Your task to perform on an android device: toggle priority inbox in the gmail app Image 0: 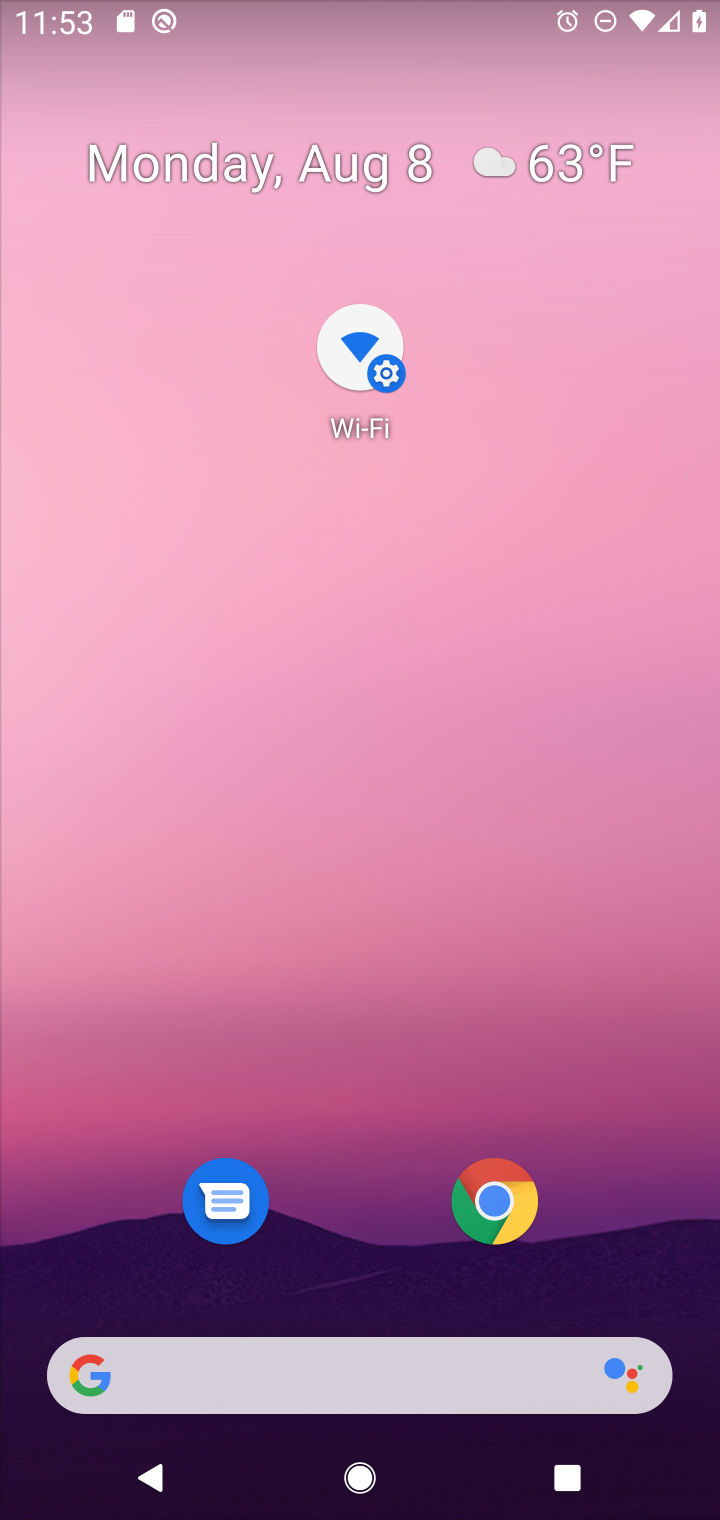
Step 0: press home button
Your task to perform on an android device: toggle priority inbox in the gmail app Image 1: 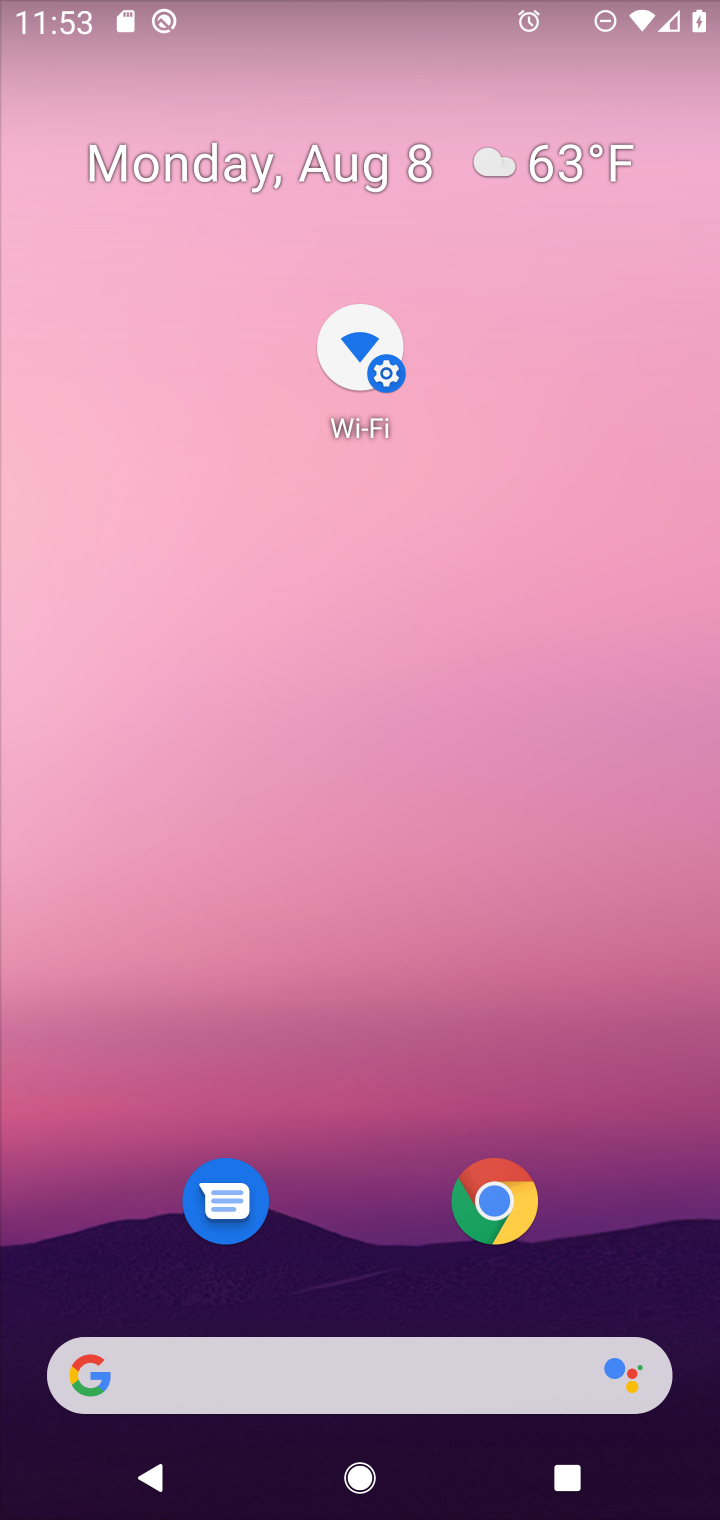
Step 1: drag from (606, 1134) to (609, 243)
Your task to perform on an android device: toggle priority inbox in the gmail app Image 2: 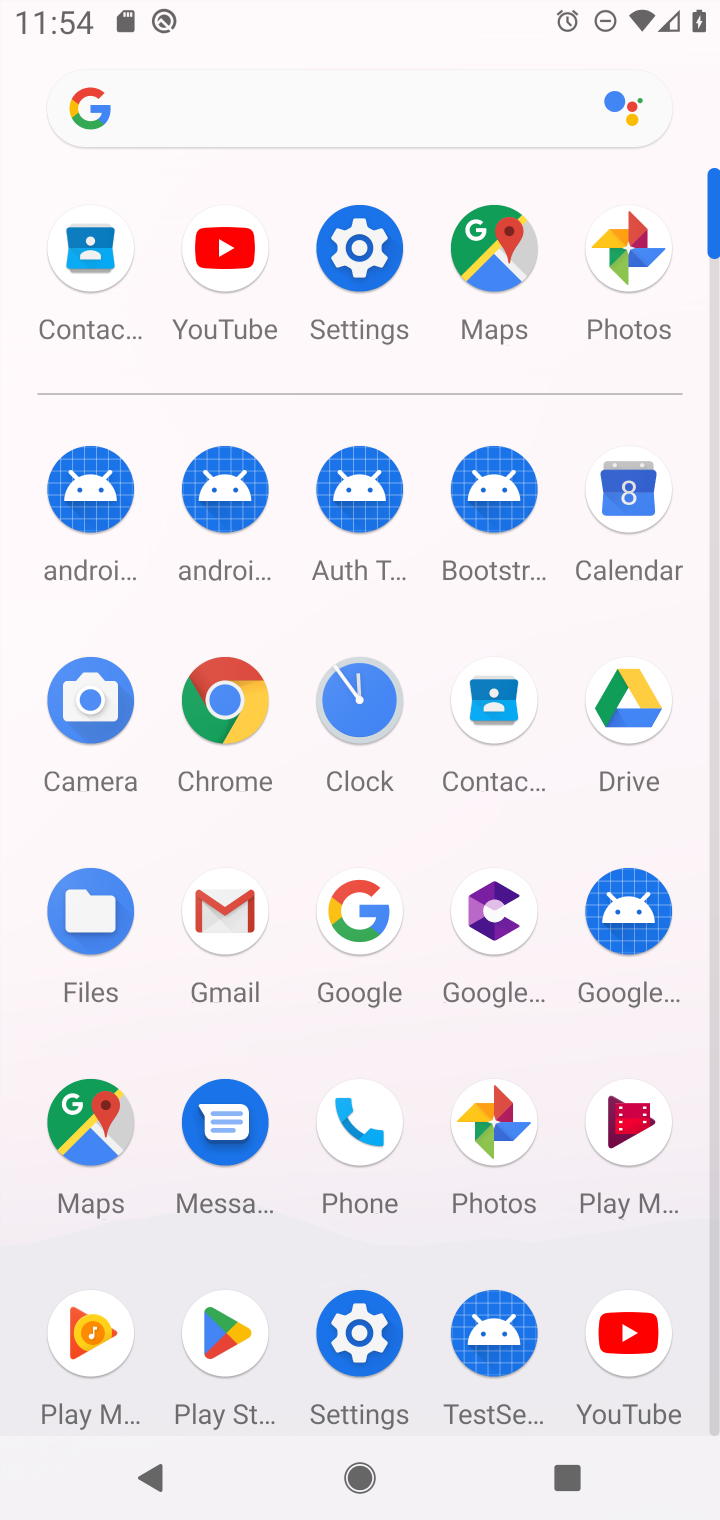
Step 2: click (230, 922)
Your task to perform on an android device: toggle priority inbox in the gmail app Image 3: 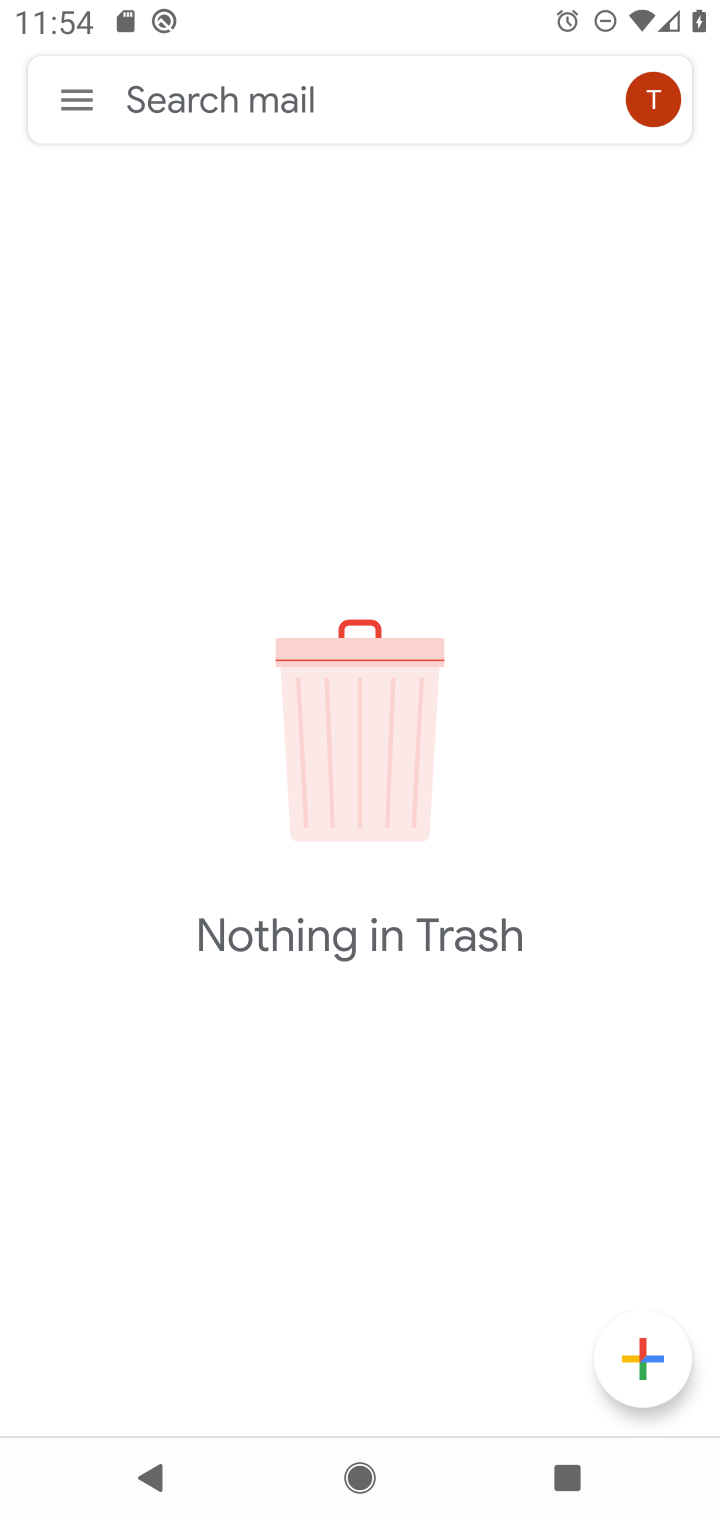
Step 3: click (81, 96)
Your task to perform on an android device: toggle priority inbox in the gmail app Image 4: 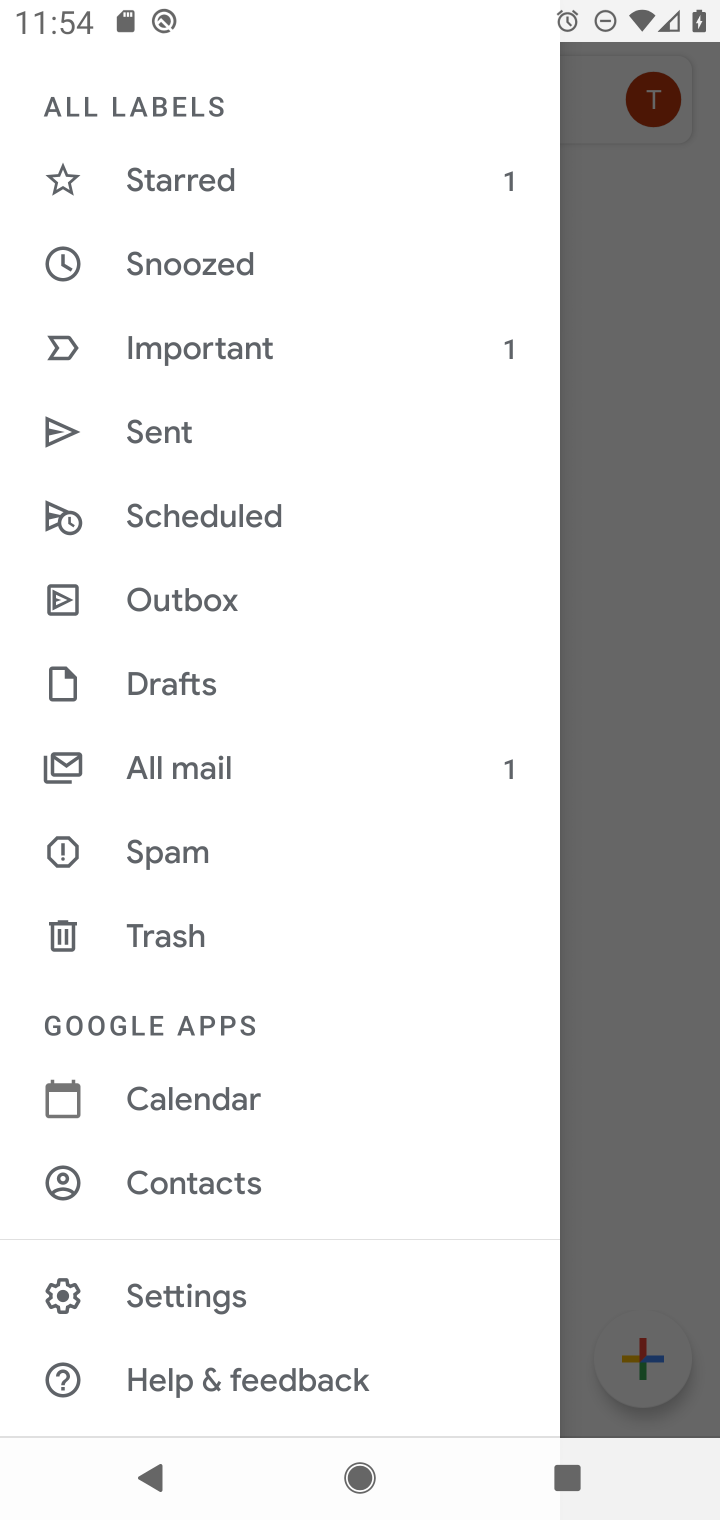
Step 4: drag from (382, 1197) to (388, 816)
Your task to perform on an android device: toggle priority inbox in the gmail app Image 5: 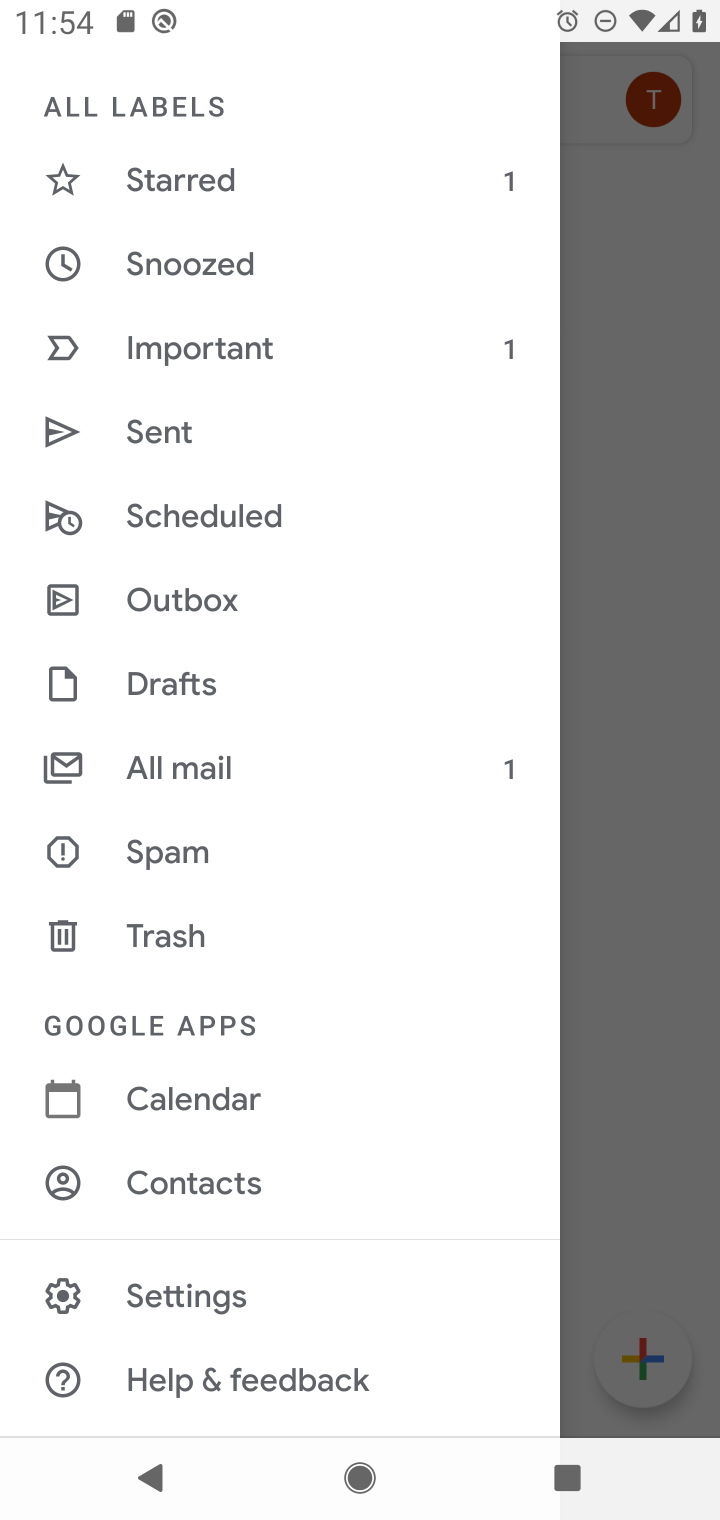
Step 5: click (257, 1302)
Your task to perform on an android device: toggle priority inbox in the gmail app Image 6: 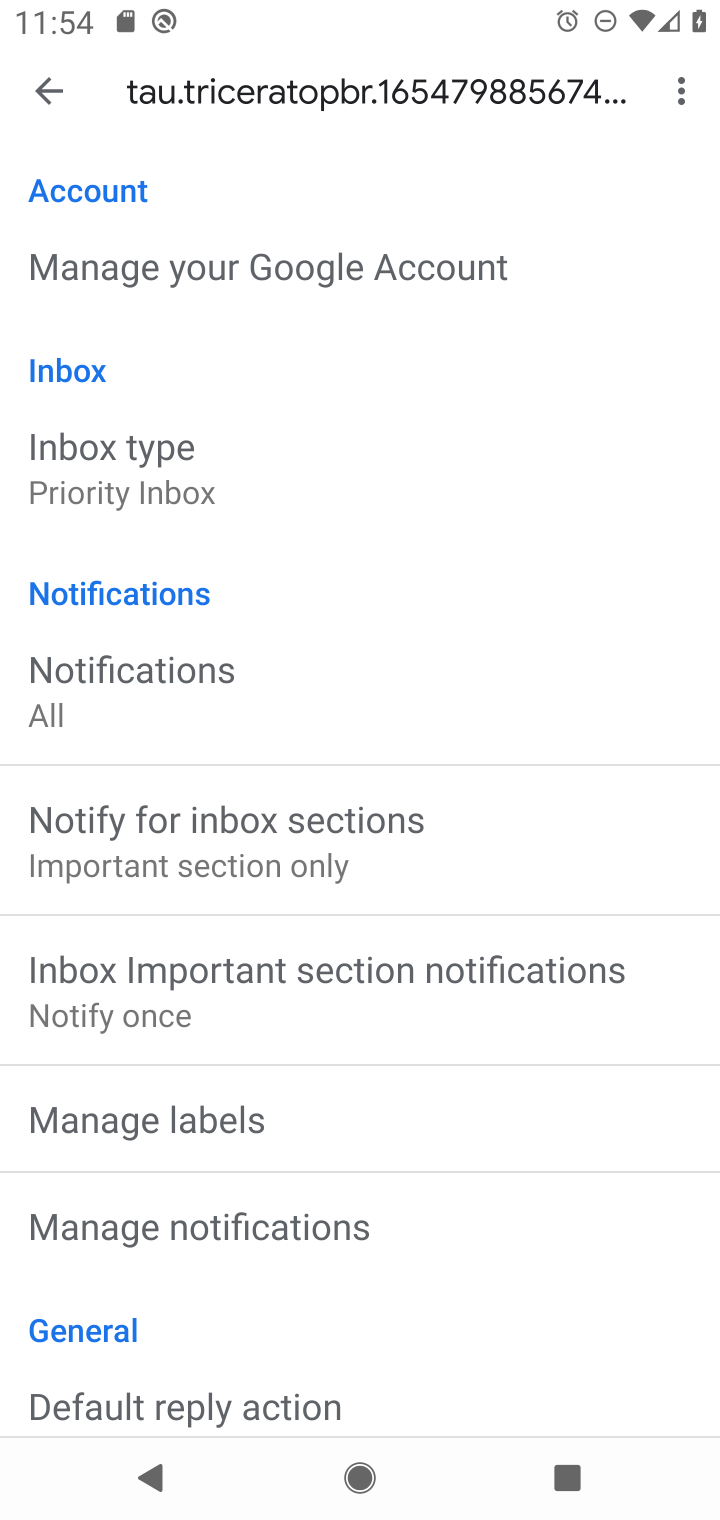
Step 6: task complete